Your task to perform on an android device: turn on translation in the chrome app Image 0: 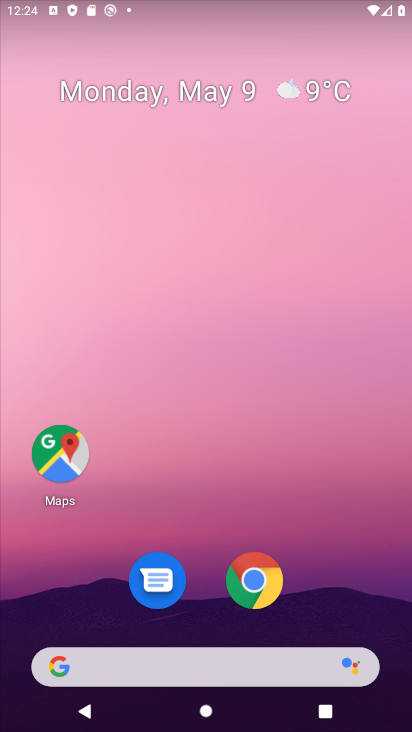
Step 0: click (272, 584)
Your task to perform on an android device: turn on translation in the chrome app Image 1: 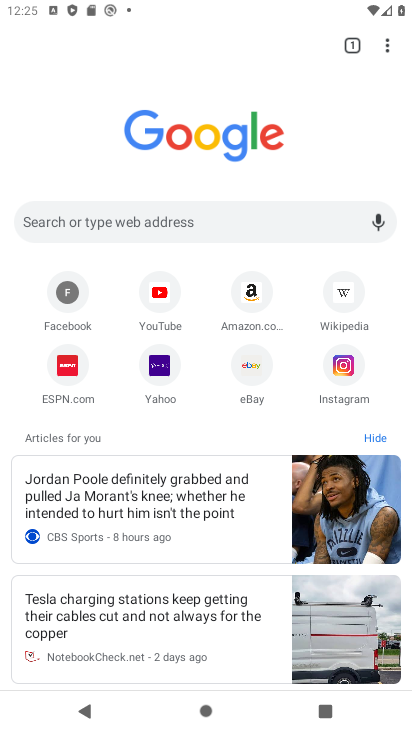
Step 1: click (395, 36)
Your task to perform on an android device: turn on translation in the chrome app Image 2: 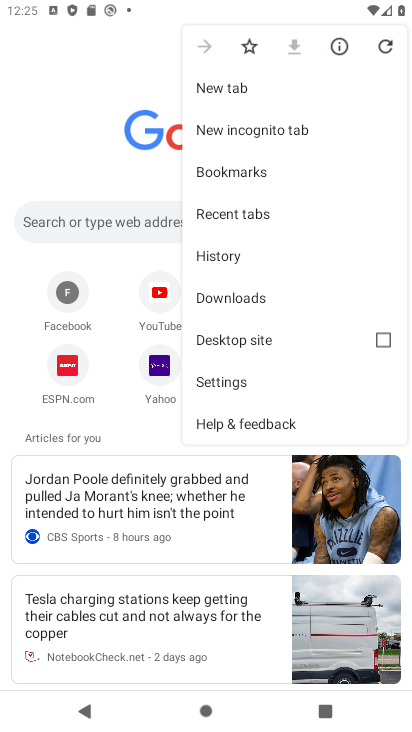
Step 2: click (251, 381)
Your task to perform on an android device: turn on translation in the chrome app Image 3: 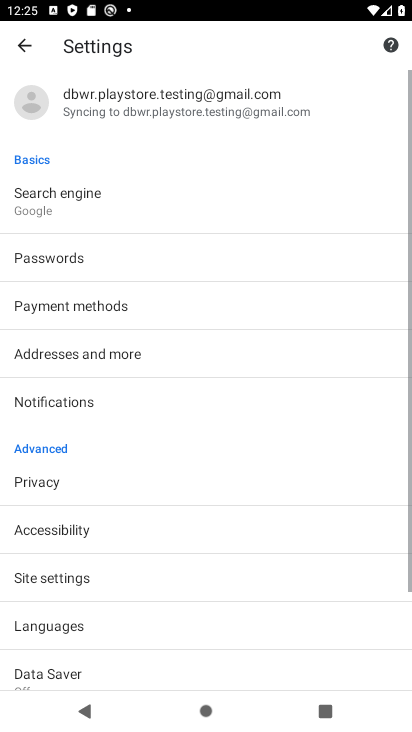
Step 3: click (89, 629)
Your task to perform on an android device: turn on translation in the chrome app Image 4: 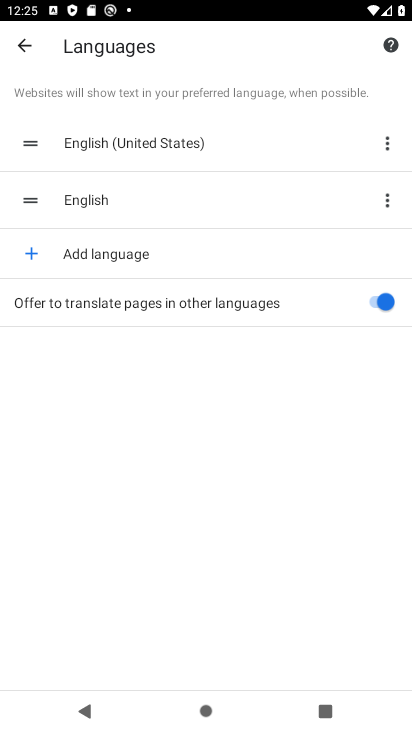
Step 4: task complete